Your task to perform on an android device: change timer sound Image 0: 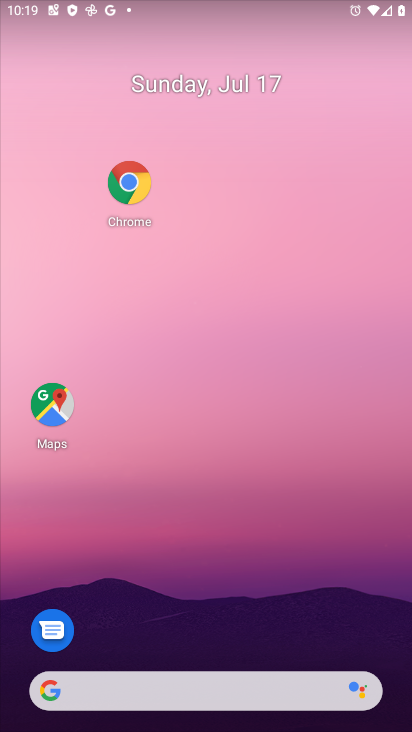
Step 0: click (191, 4)
Your task to perform on an android device: change timer sound Image 1: 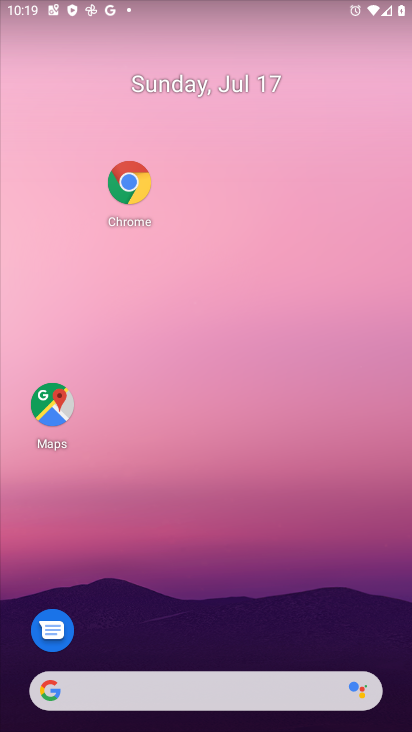
Step 1: drag from (159, 580) to (218, 56)
Your task to perform on an android device: change timer sound Image 2: 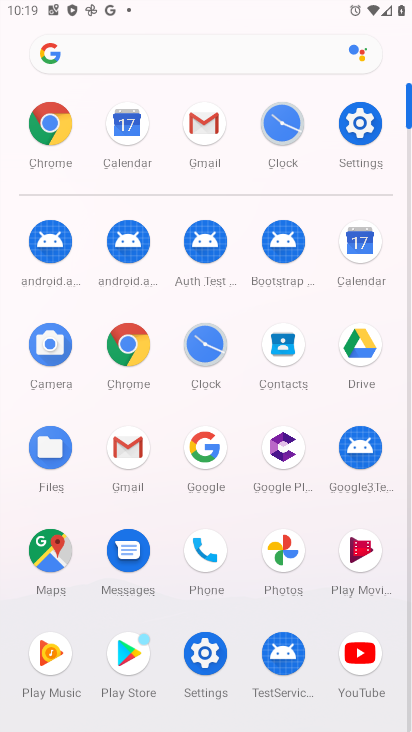
Step 2: click (194, 363)
Your task to perform on an android device: change timer sound Image 3: 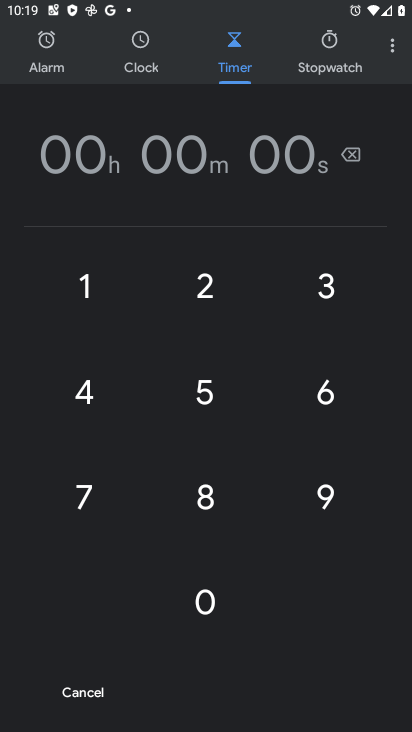
Step 3: click (392, 44)
Your task to perform on an android device: change timer sound Image 4: 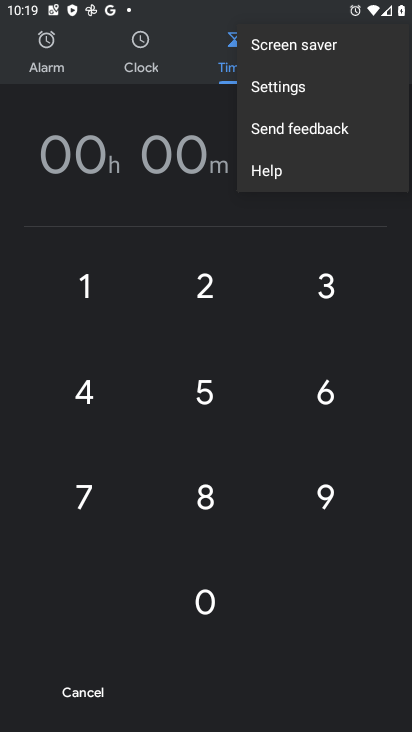
Step 4: click (265, 87)
Your task to perform on an android device: change timer sound Image 5: 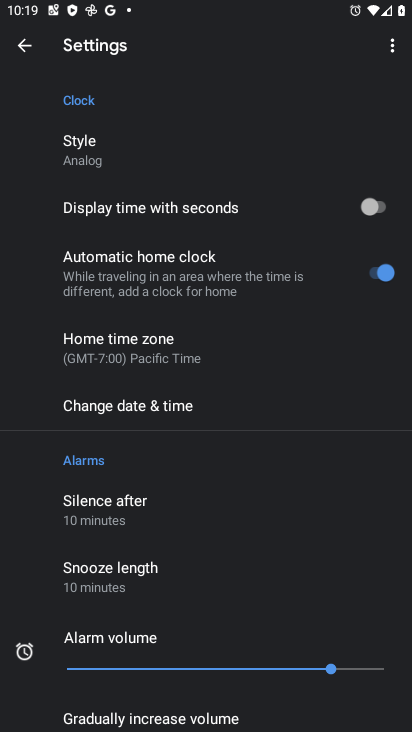
Step 5: drag from (303, 511) to (295, 182)
Your task to perform on an android device: change timer sound Image 6: 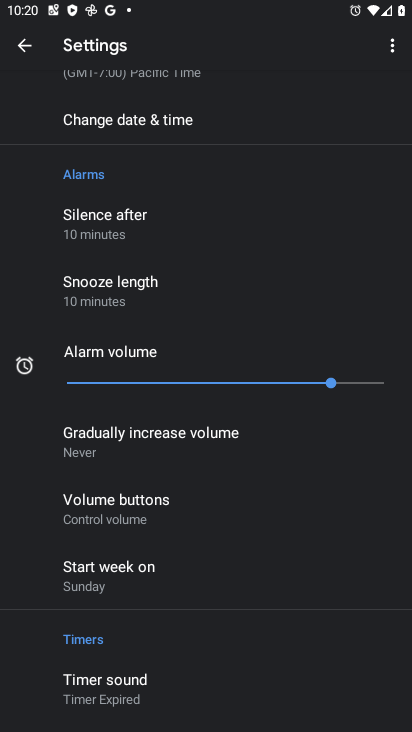
Step 6: click (110, 698)
Your task to perform on an android device: change timer sound Image 7: 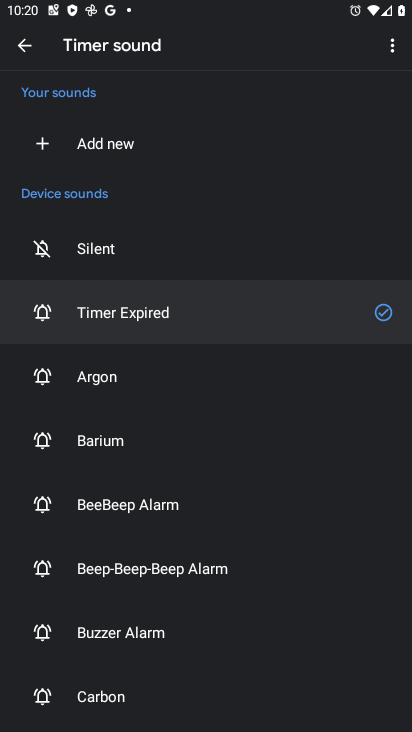
Step 7: click (70, 378)
Your task to perform on an android device: change timer sound Image 8: 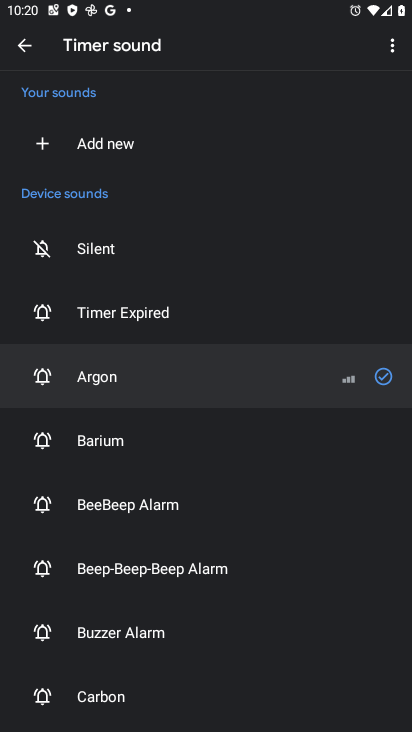
Step 8: task complete